Your task to perform on an android device: allow notifications from all sites in the chrome app Image 0: 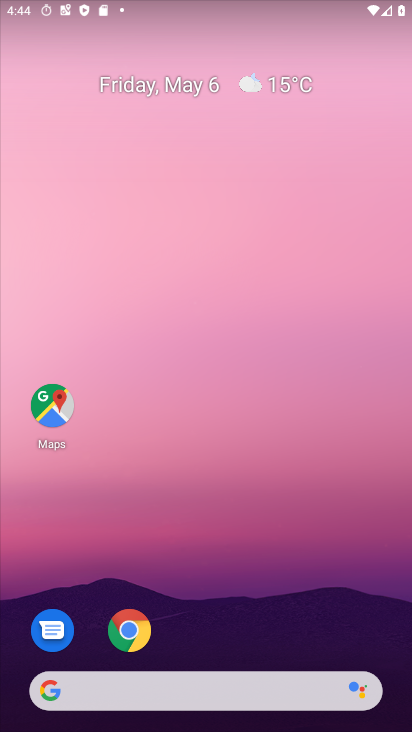
Step 0: click (120, 628)
Your task to perform on an android device: allow notifications from all sites in the chrome app Image 1: 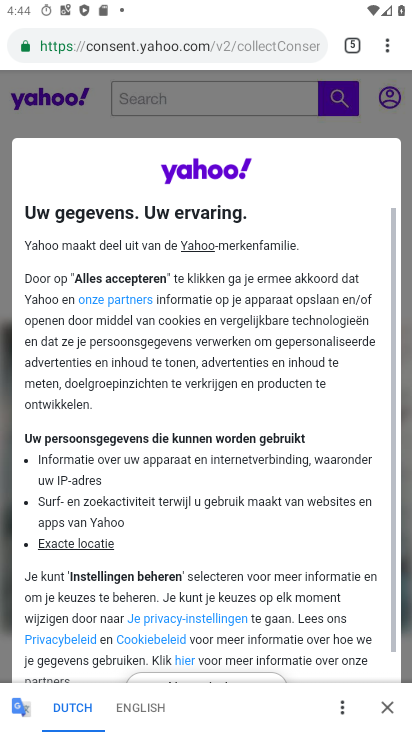
Step 1: drag from (387, 41) to (228, 551)
Your task to perform on an android device: allow notifications from all sites in the chrome app Image 2: 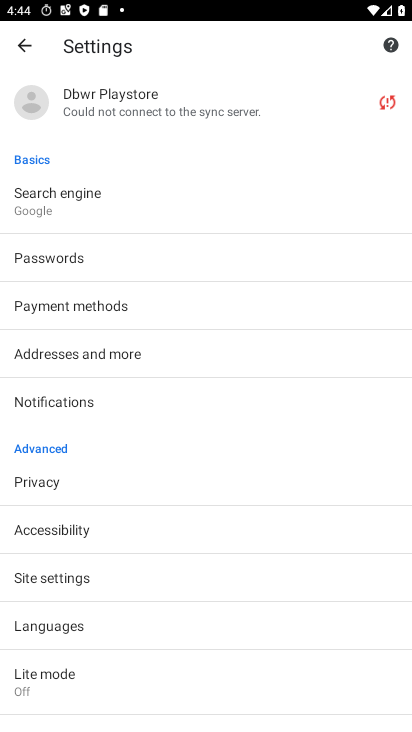
Step 2: click (66, 408)
Your task to perform on an android device: allow notifications from all sites in the chrome app Image 3: 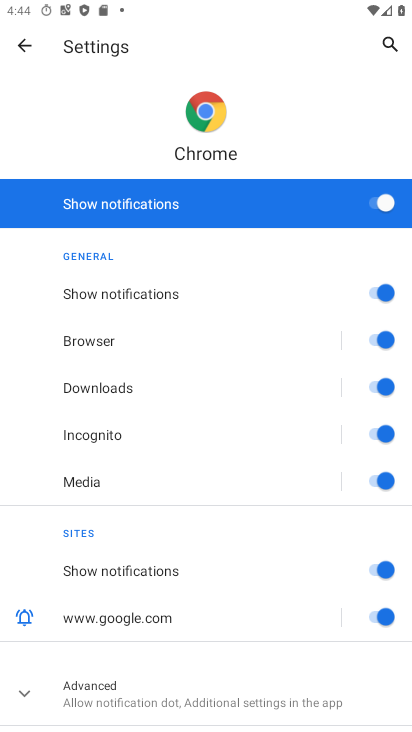
Step 3: task complete